Your task to perform on an android device: Open notification settings Image 0: 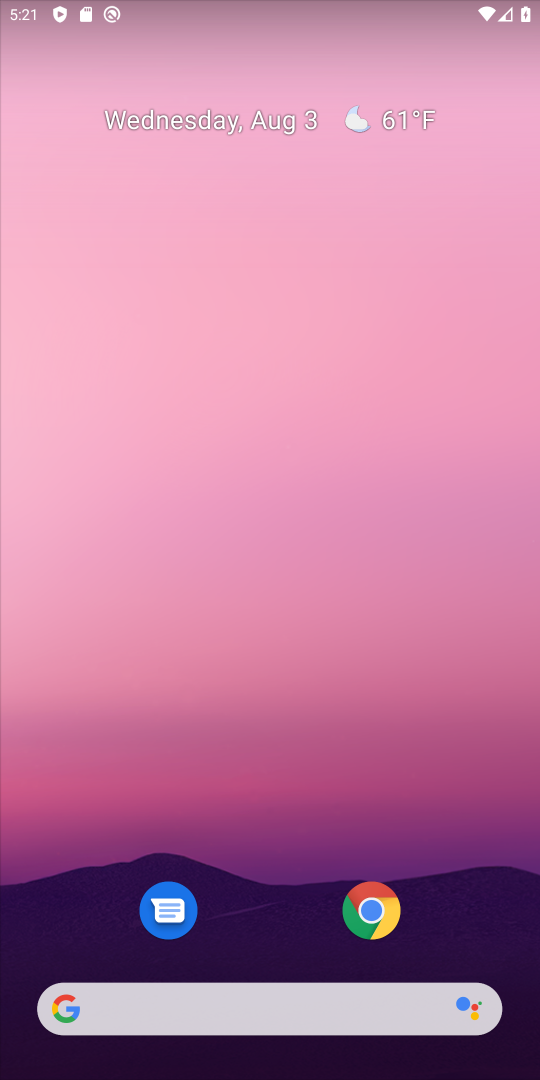
Step 0: drag from (271, 905) to (363, 137)
Your task to perform on an android device: Open notification settings Image 1: 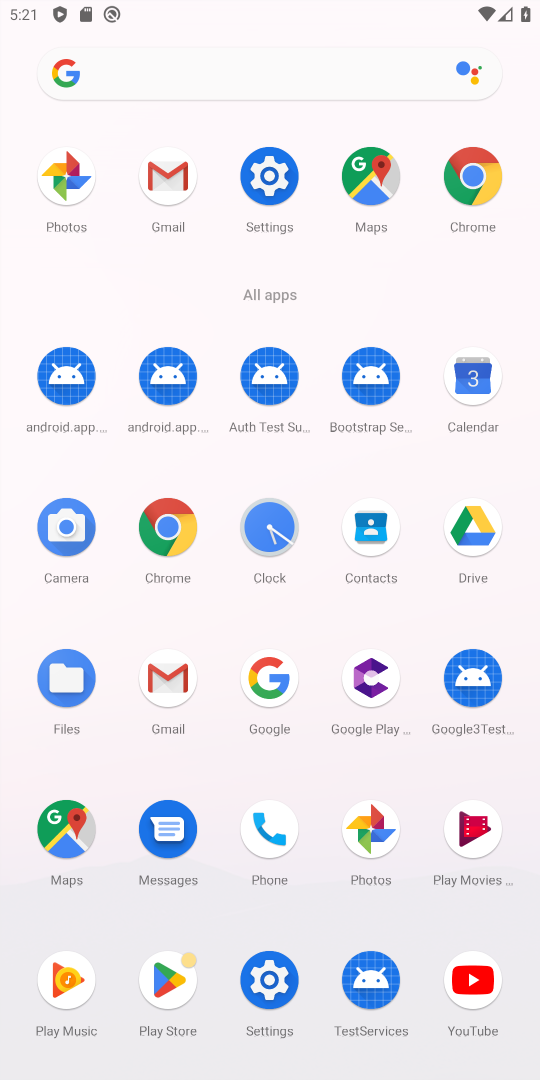
Step 1: click (264, 161)
Your task to perform on an android device: Open notification settings Image 2: 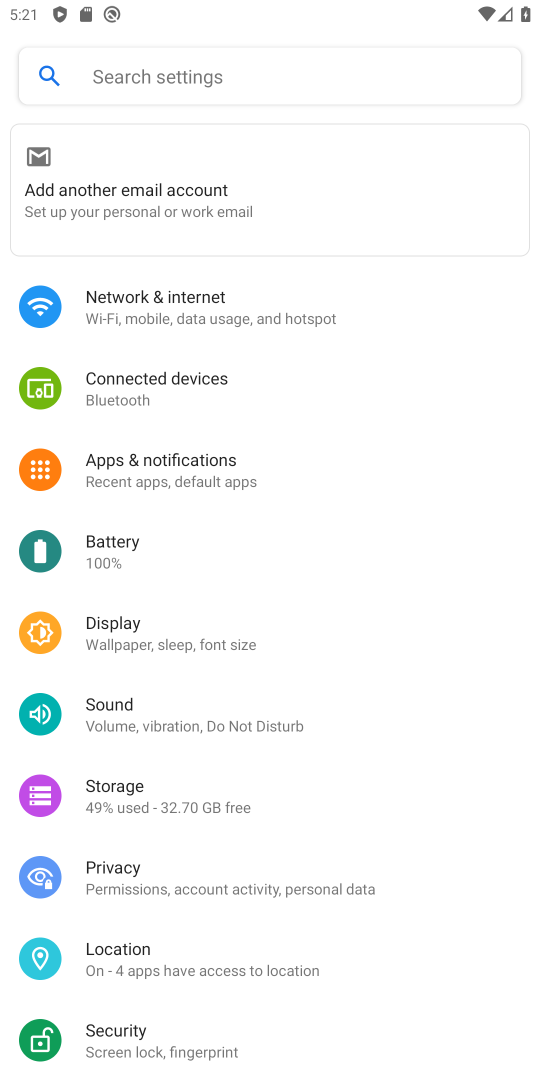
Step 2: click (204, 467)
Your task to perform on an android device: Open notification settings Image 3: 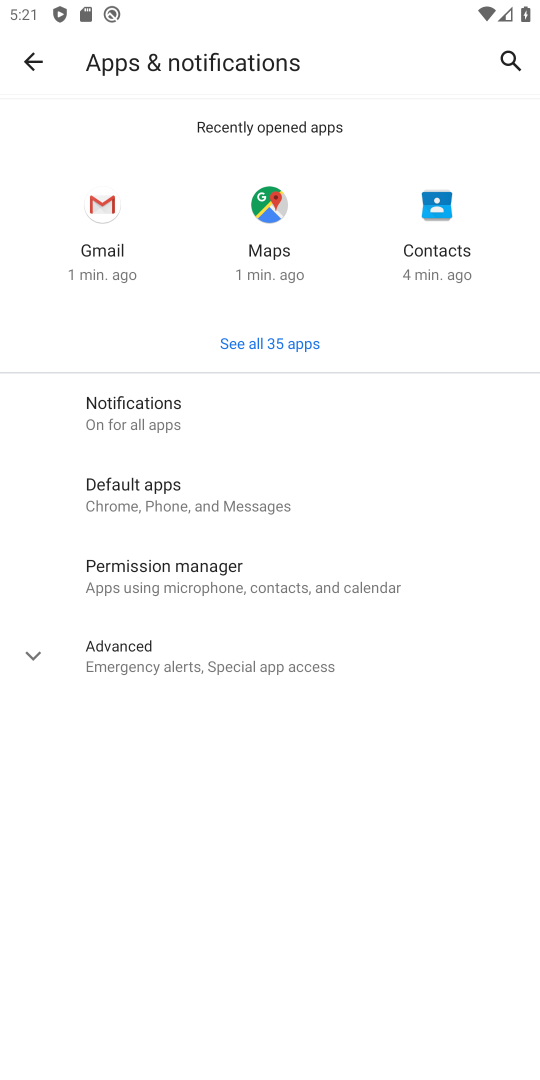
Step 3: click (157, 416)
Your task to perform on an android device: Open notification settings Image 4: 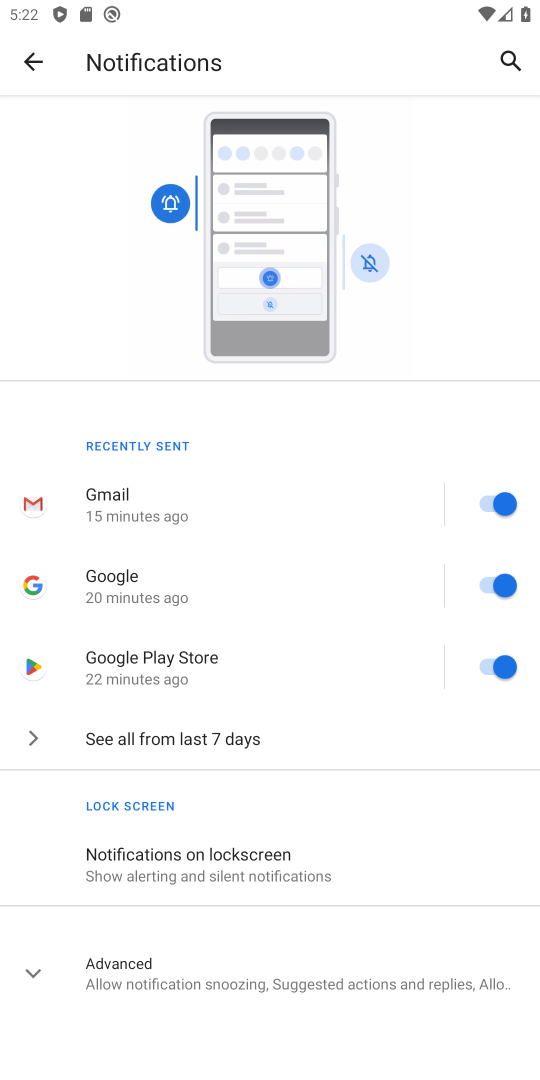
Step 4: task complete